Your task to perform on an android device: empty trash in the gmail app Image 0: 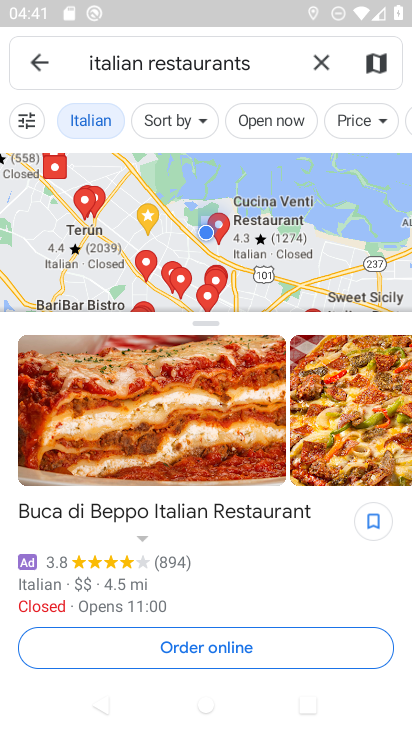
Step 0: drag from (252, 567) to (244, 390)
Your task to perform on an android device: empty trash in the gmail app Image 1: 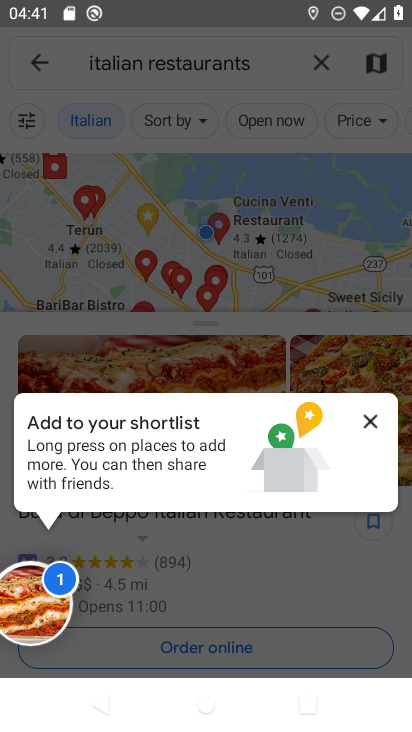
Step 1: press home button
Your task to perform on an android device: empty trash in the gmail app Image 2: 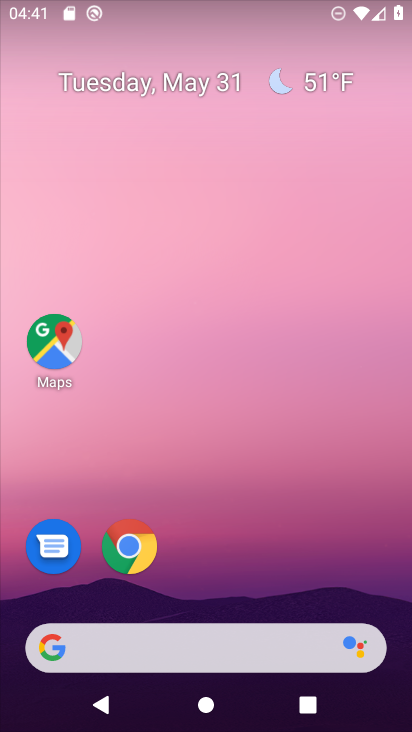
Step 2: drag from (207, 596) to (209, 436)
Your task to perform on an android device: empty trash in the gmail app Image 3: 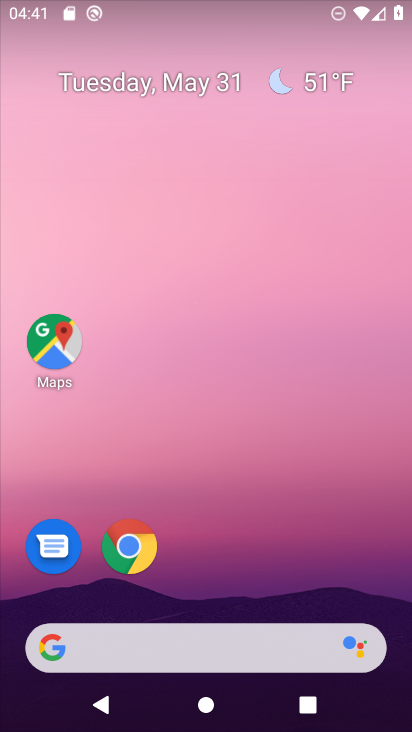
Step 3: drag from (215, 569) to (208, 159)
Your task to perform on an android device: empty trash in the gmail app Image 4: 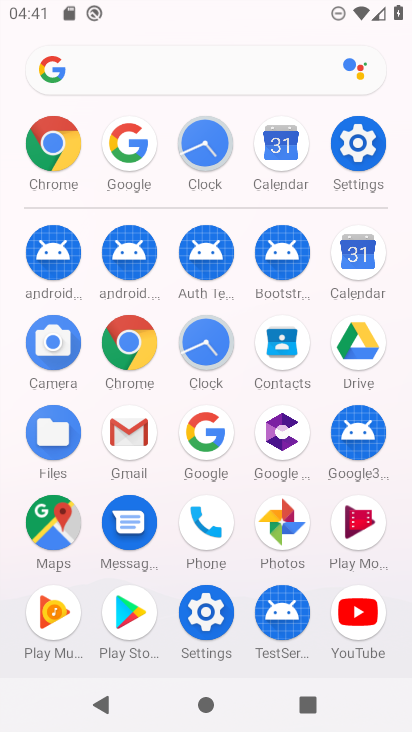
Step 4: click (131, 444)
Your task to perform on an android device: empty trash in the gmail app Image 5: 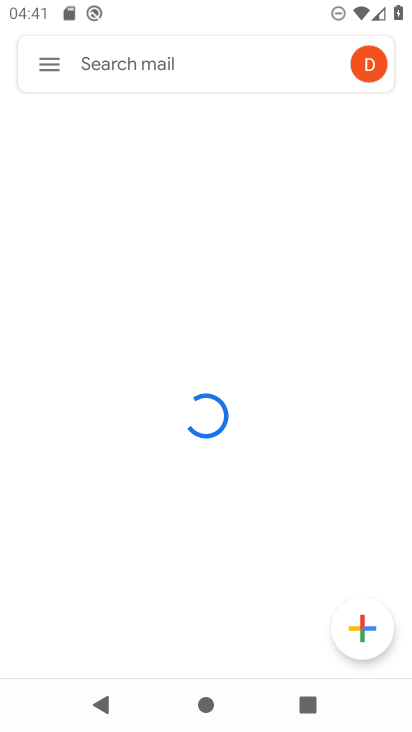
Step 5: click (42, 65)
Your task to perform on an android device: empty trash in the gmail app Image 6: 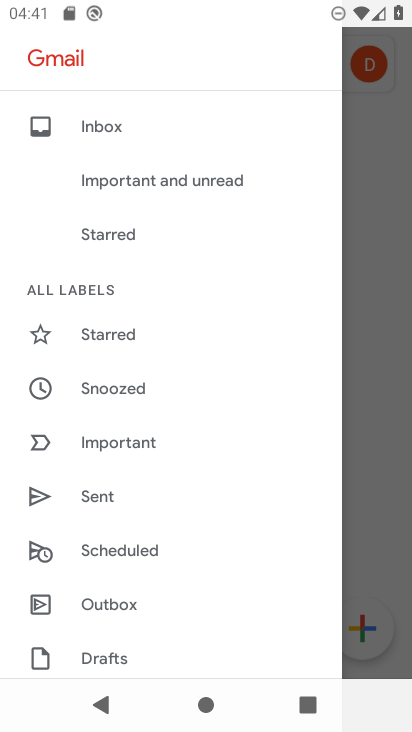
Step 6: drag from (103, 608) to (77, 325)
Your task to perform on an android device: empty trash in the gmail app Image 7: 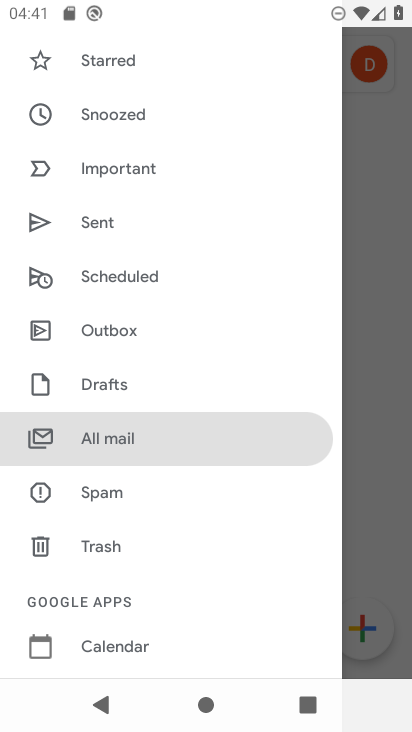
Step 7: click (104, 546)
Your task to perform on an android device: empty trash in the gmail app Image 8: 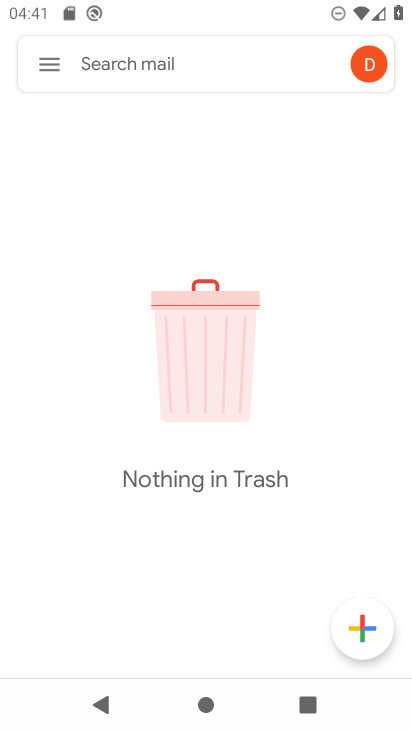
Step 8: task complete